Your task to perform on an android device: Open Youtube and go to the subscriptions tab Image 0: 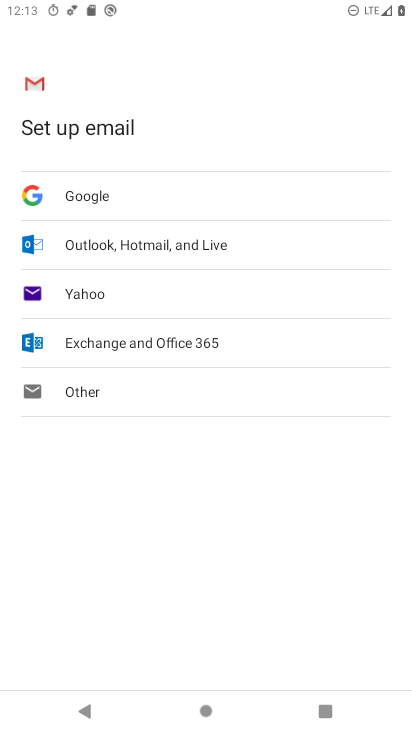
Step 0: press home button
Your task to perform on an android device: Open Youtube and go to the subscriptions tab Image 1: 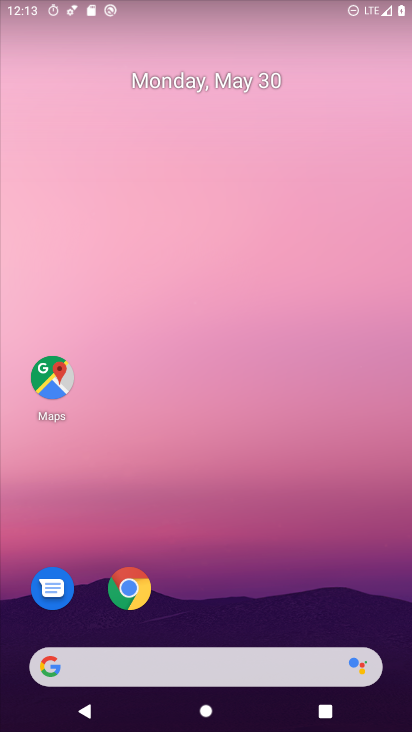
Step 1: drag from (262, 486) to (267, 110)
Your task to perform on an android device: Open Youtube and go to the subscriptions tab Image 2: 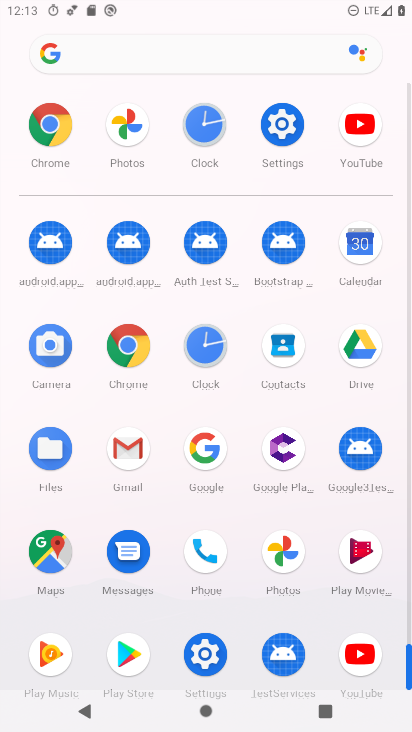
Step 2: click (362, 665)
Your task to perform on an android device: Open Youtube and go to the subscriptions tab Image 3: 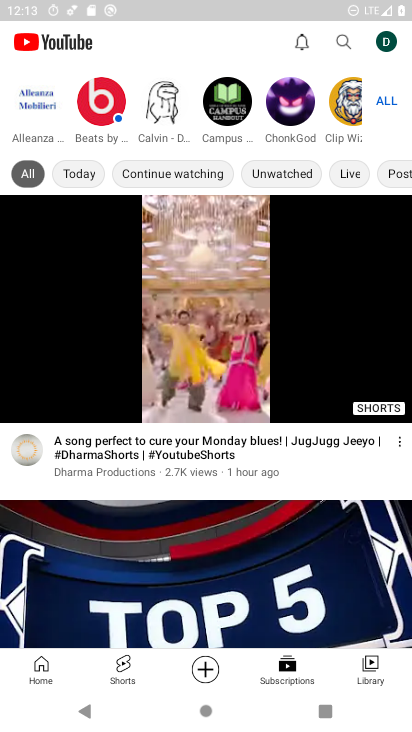
Step 3: click (295, 676)
Your task to perform on an android device: Open Youtube and go to the subscriptions tab Image 4: 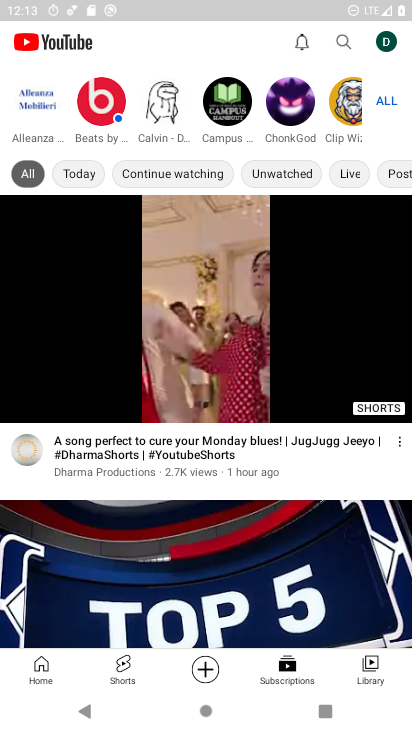
Step 4: task complete